Your task to perform on an android device: What's on the menu at Pizza Hut? Image 0: 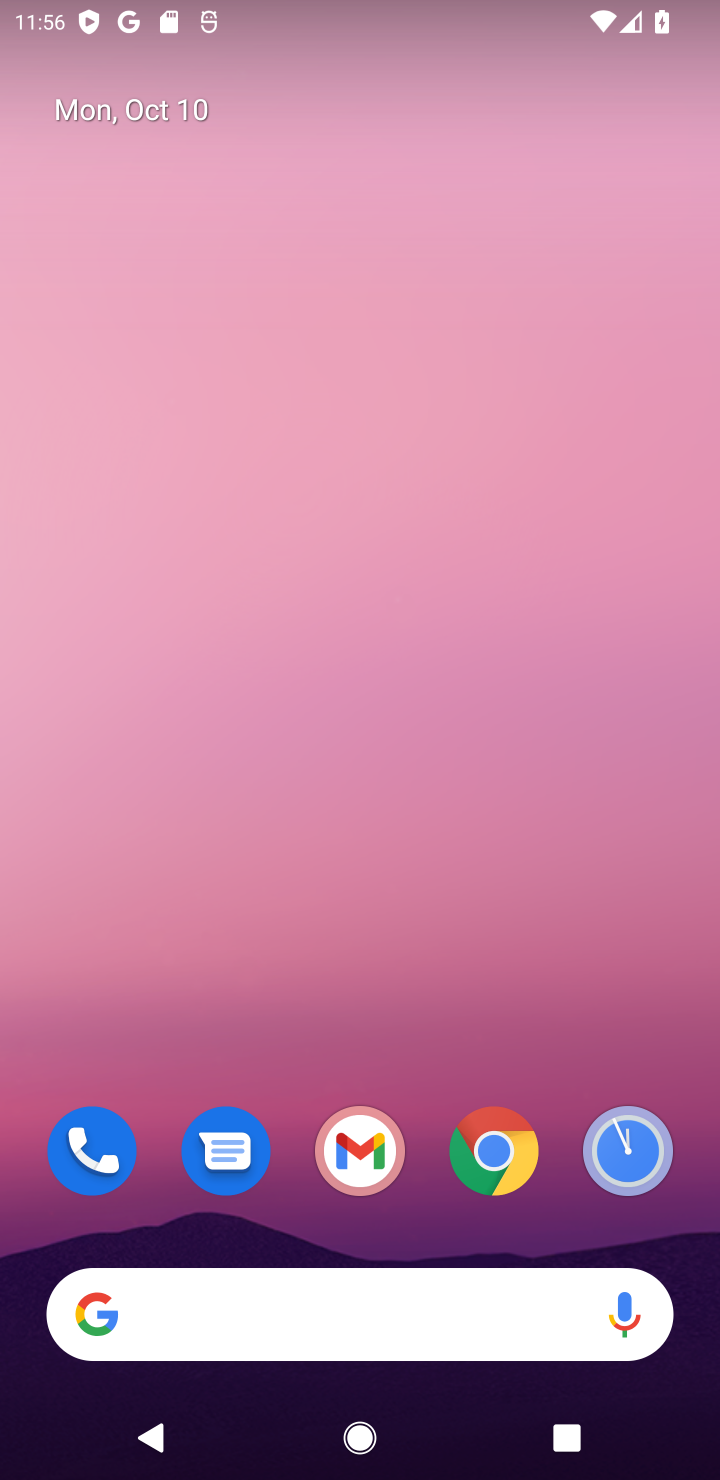
Step 0: drag from (319, 1226) to (249, 792)
Your task to perform on an android device: What's on the menu at Pizza Hut? Image 1: 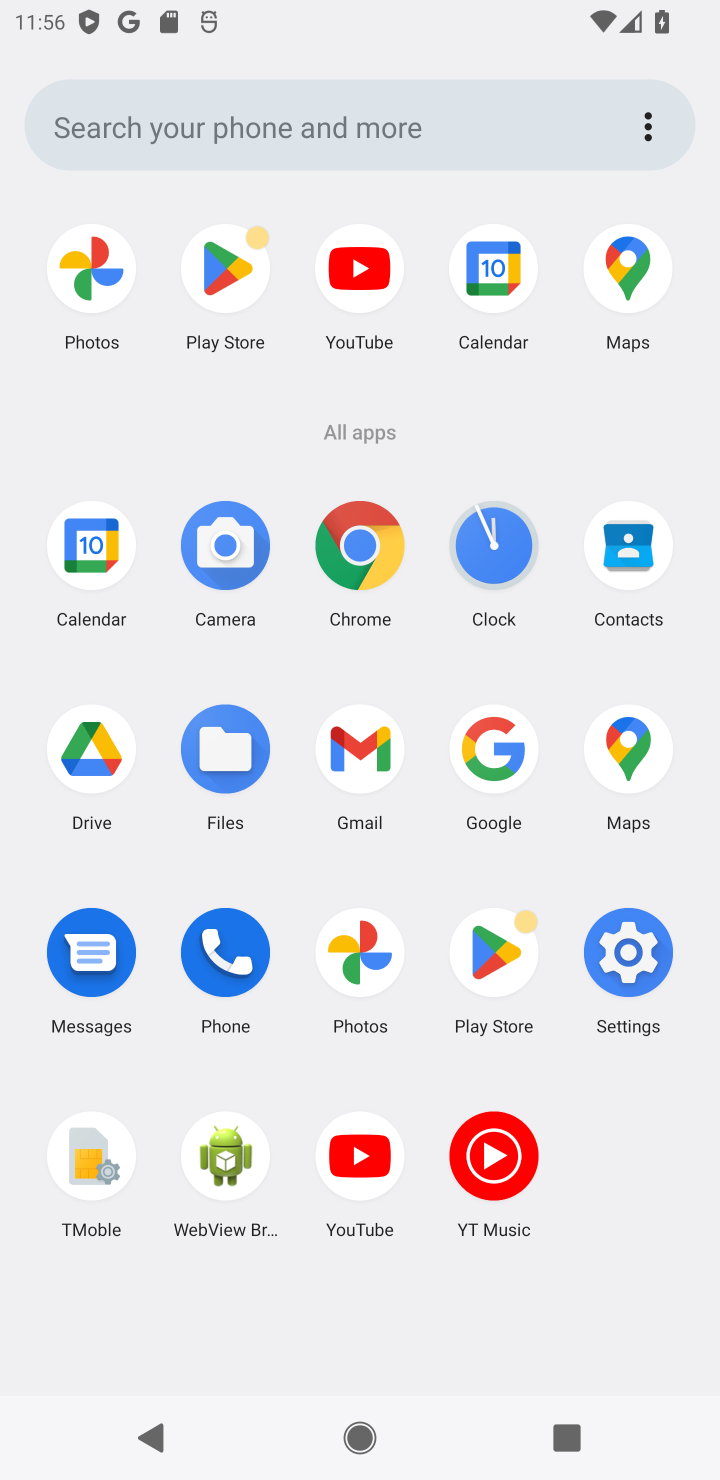
Step 1: click (372, 589)
Your task to perform on an android device: What's on the menu at Pizza Hut? Image 2: 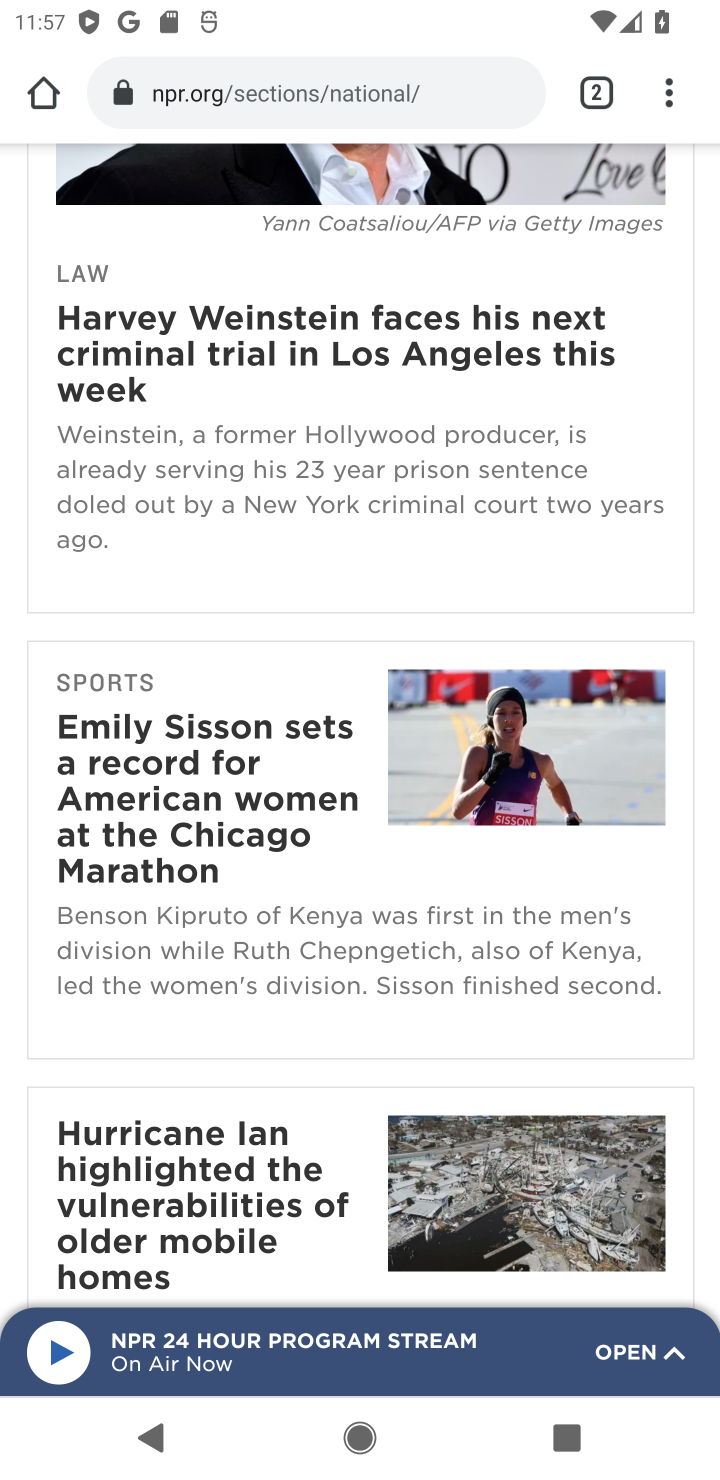
Step 2: click (664, 71)
Your task to perform on an android device: What's on the menu at Pizza Hut? Image 3: 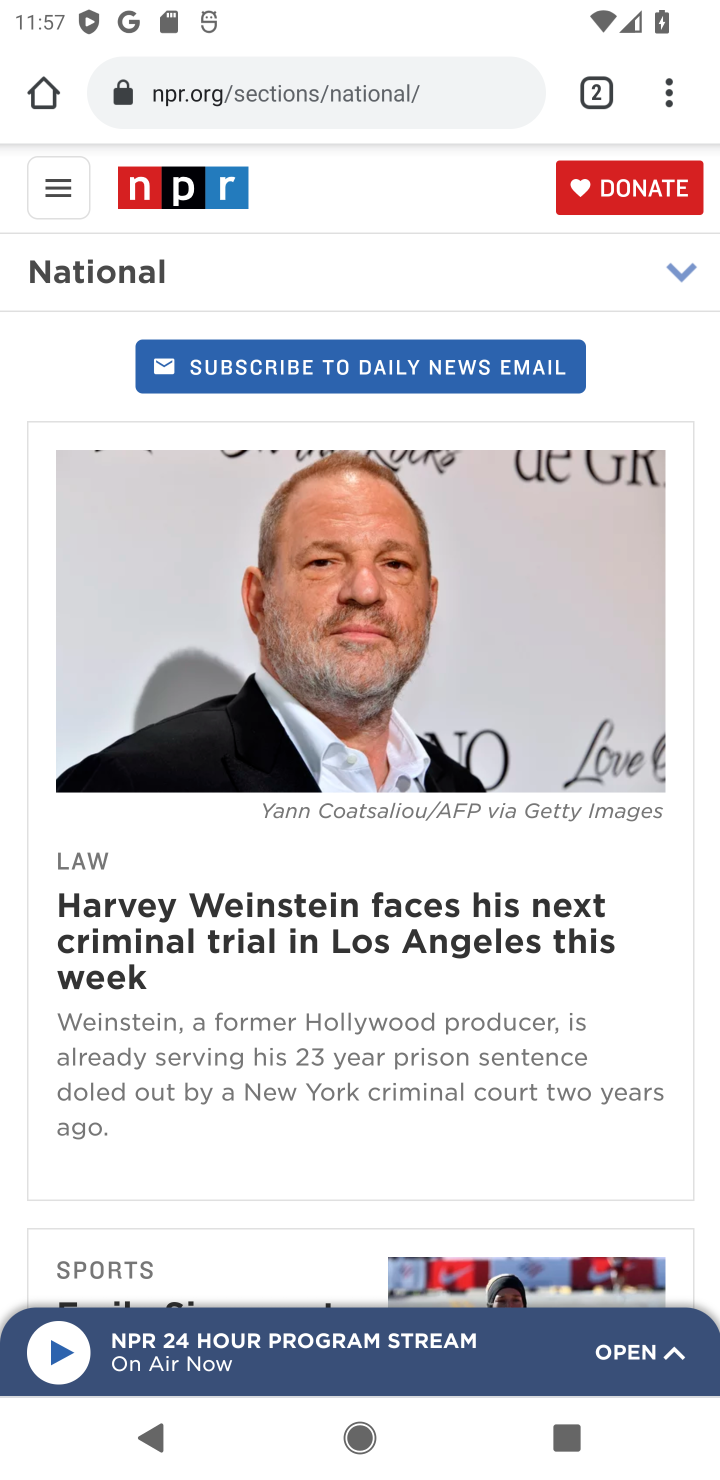
Step 3: click (35, 96)
Your task to perform on an android device: What's on the menu at Pizza Hut? Image 4: 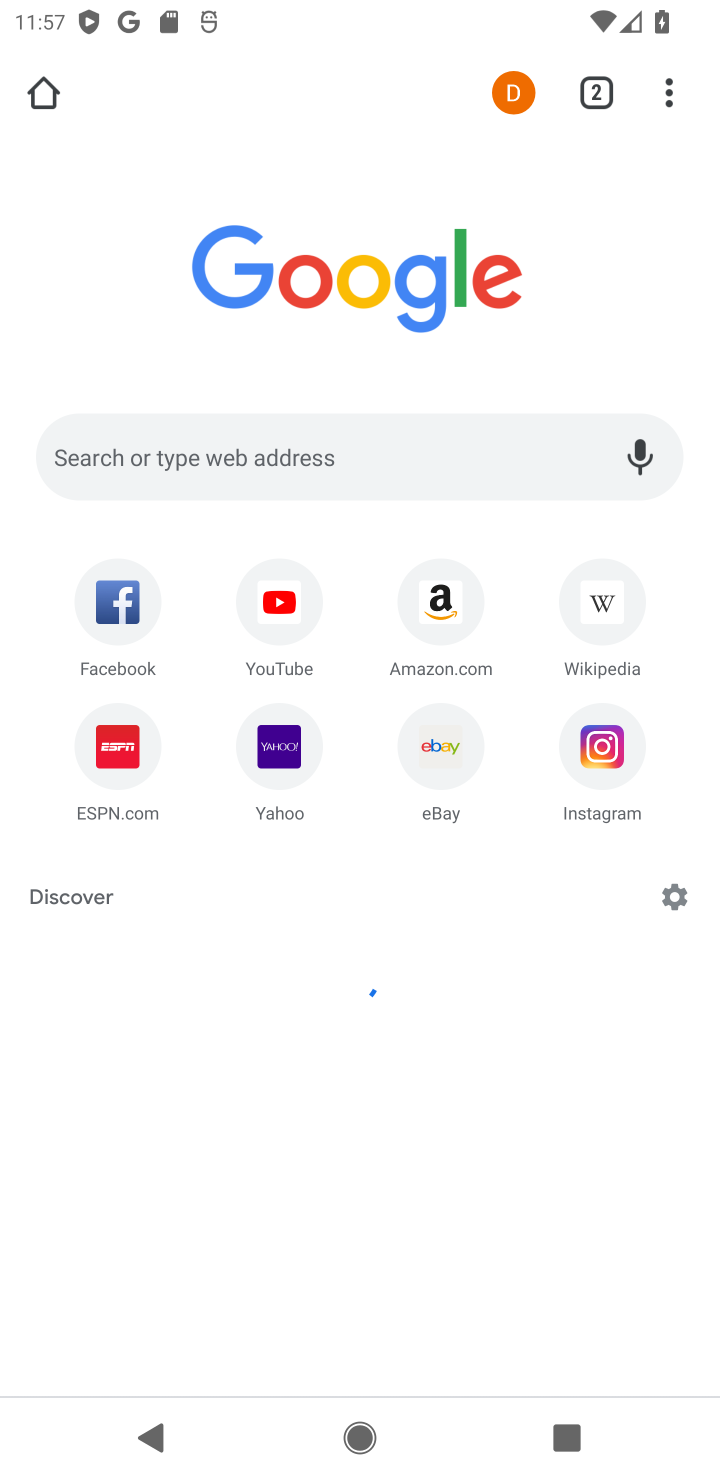
Step 4: click (187, 444)
Your task to perform on an android device: What's on the menu at Pizza Hut? Image 5: 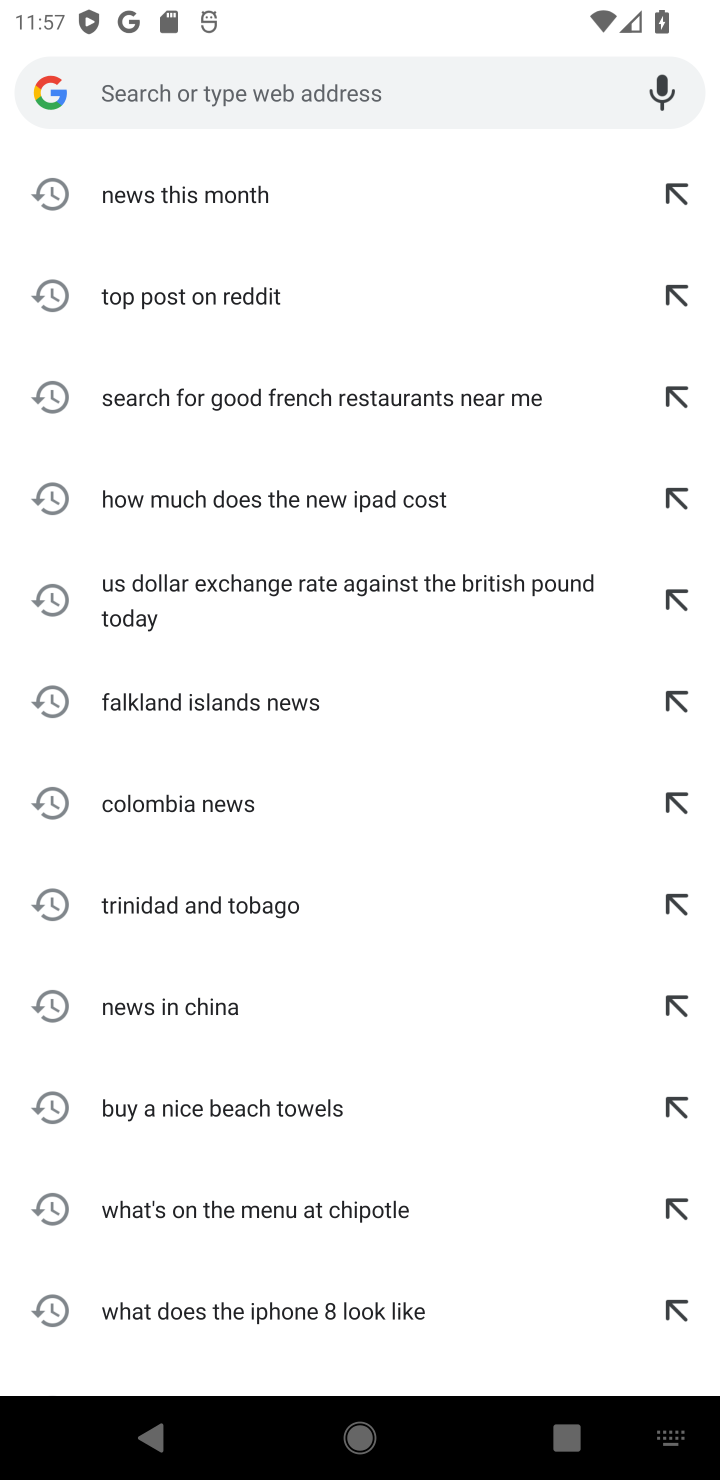
Step 5: type " What's on the menu at Pizza Hut?"
Your task to perform on an android device: What's on the menu at Pizza Hut? Image 6: 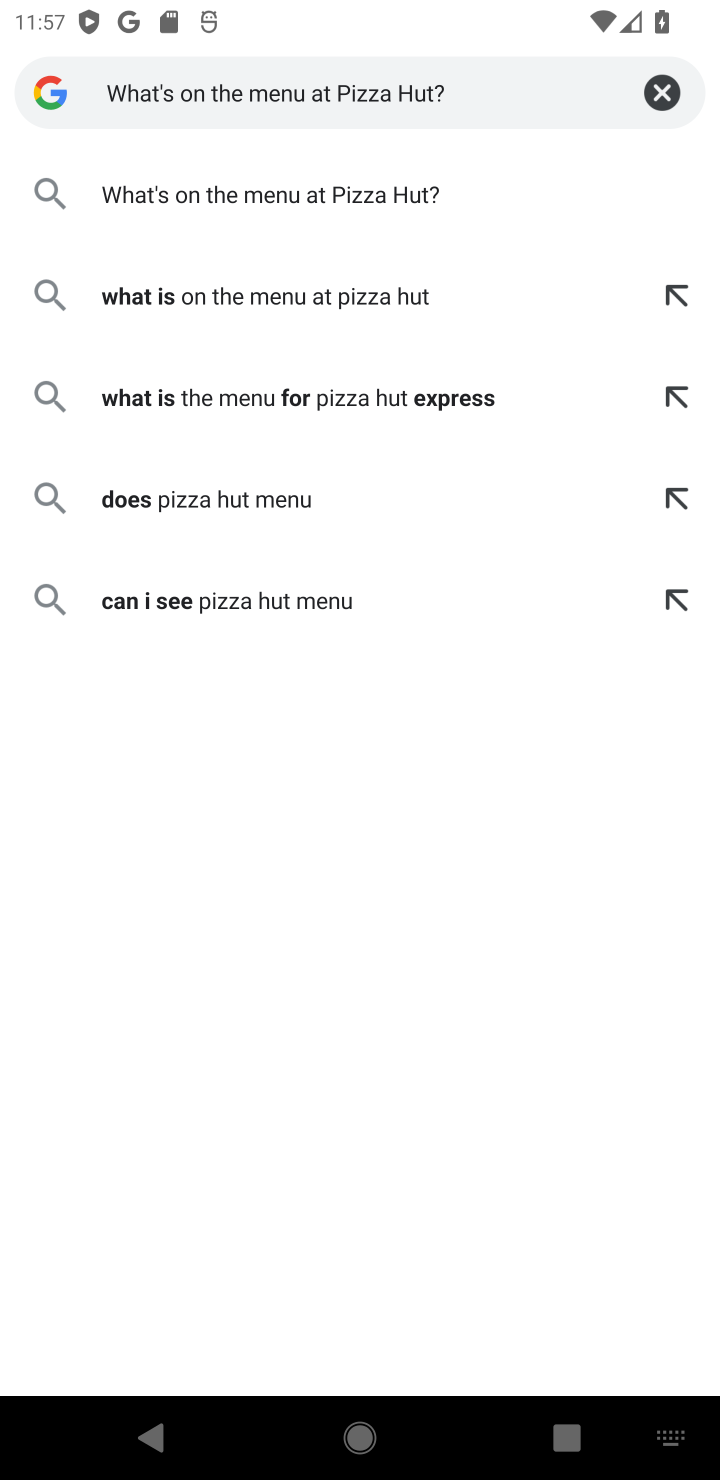
Step 6: click (344, 201)
Your task to perform on an android device: What's on the menu at Pizza Hut? Image 7: 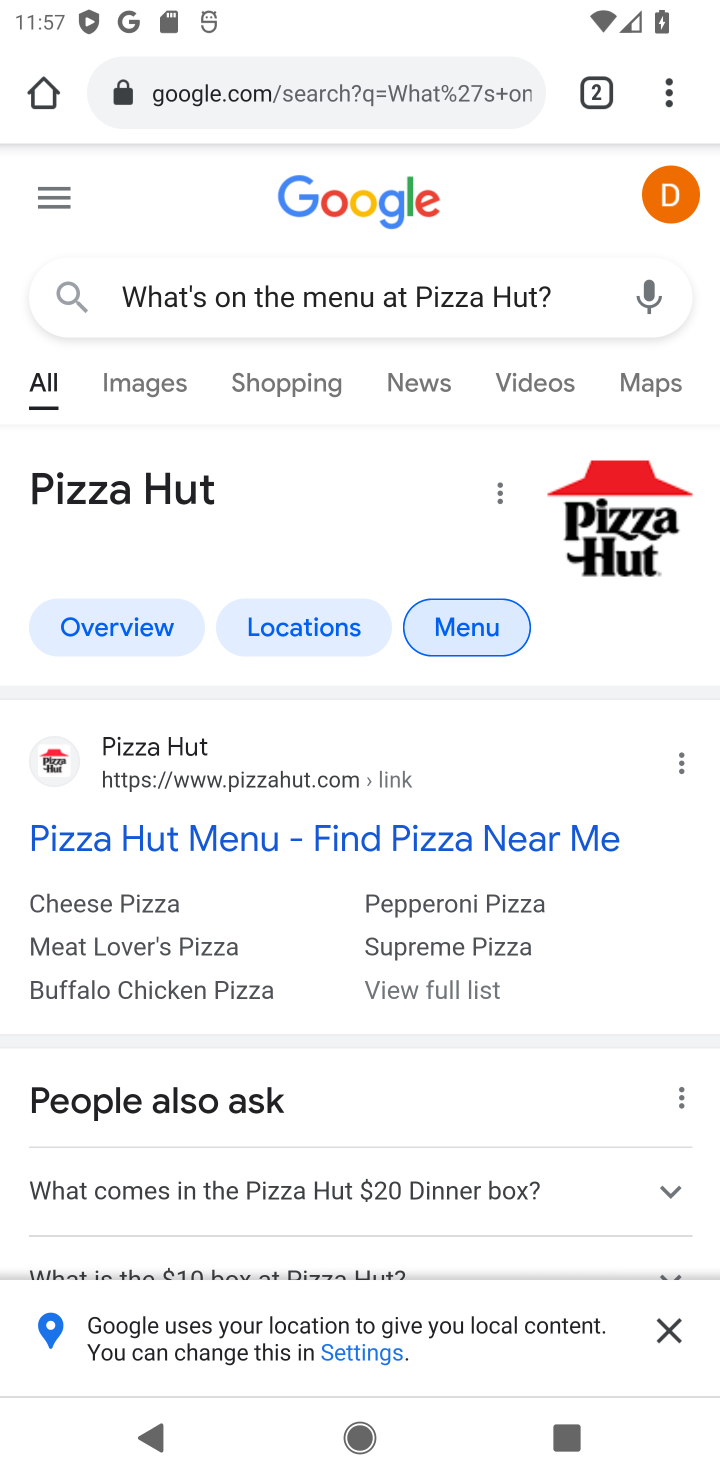
Step 7: task complete